Your task to perform on an android device: Search for the new nike shoes on Target Image 0: 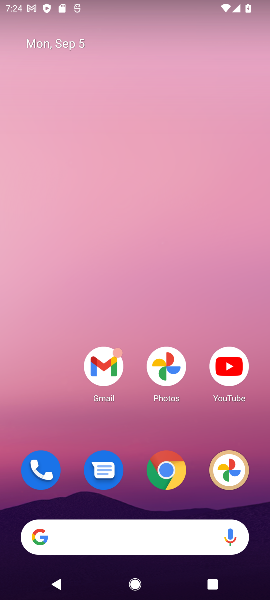
Step 0: click (64, 94)
Your task to perform on an android device: Search for the new nike shoes on Target Image 1: 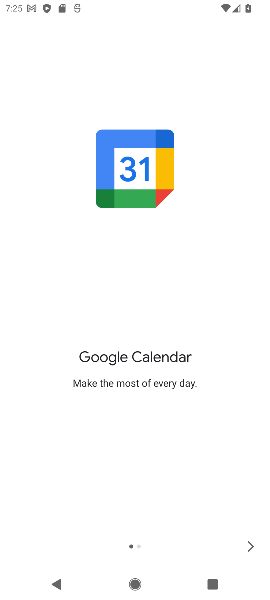
Step 1: click (259, 539)
Your task to perform on an android device: Search for the new nike shoes on Target Image 2: 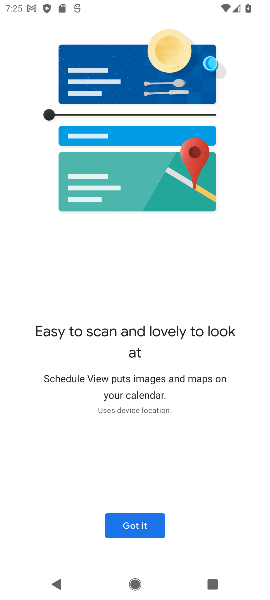
Step 2: press home button
Your task to perform on an android device: Search for the new nike shoes on Target Image 3: 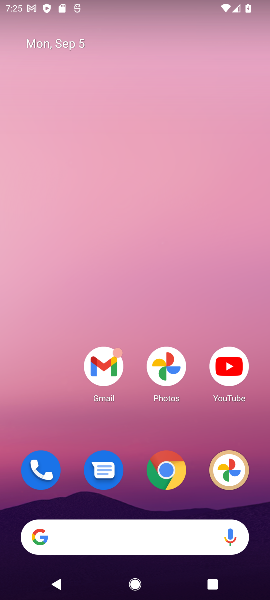
Step 3: click (131, 64)
Your task to perform on an android device: Search for the new nike shoes on Target Image 4: 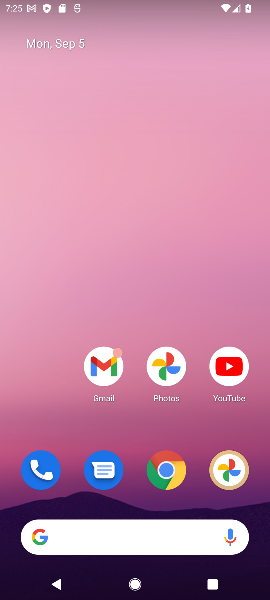
Step 4: drag from (152, 527) to (108, 93)
Your task to perform on an android device: Search for the new nike shoes on Target Image 5: 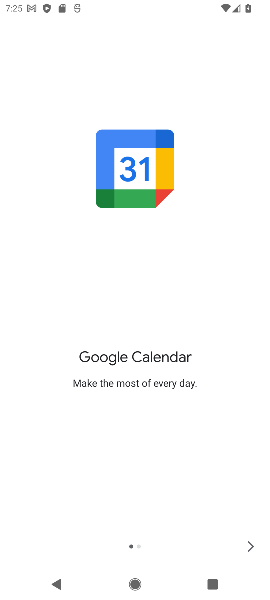
Step 5: press home button
Your task to perform on an android device: Search for the new nike shoes on Target Image 6: 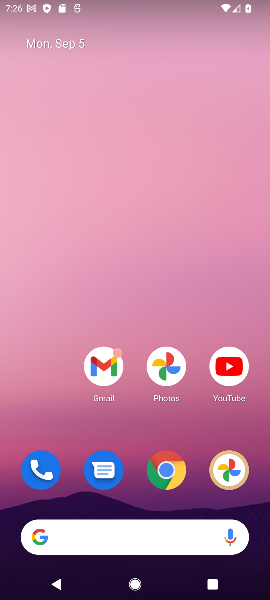
Step 6: drag from (185, 502) to (219, 35)
Your task to perform on an android device: Search for the new nike shoes on Target Image 7: 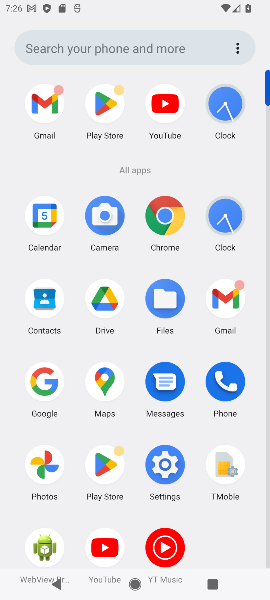
Step 7: click (157, 227)
Your task to perform on an android device: Search for the new nike shoes on Target Image 8: 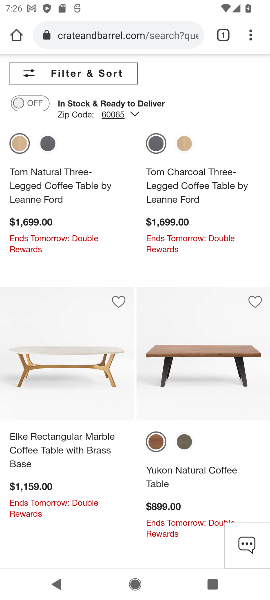
Step 8: click (77, 40)
Your task to perform on an android device: Search for the new nike shoes on Target Image 9: 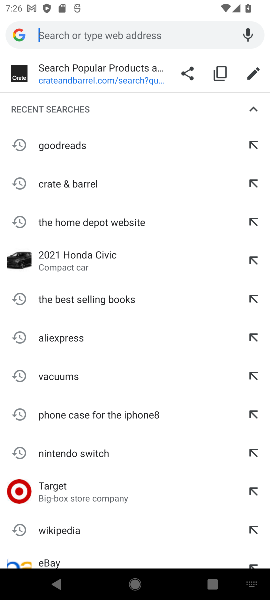
Step 9: type " Target"
Your task to perform on an android device: Search for the new nike shoes on Target Image 10: 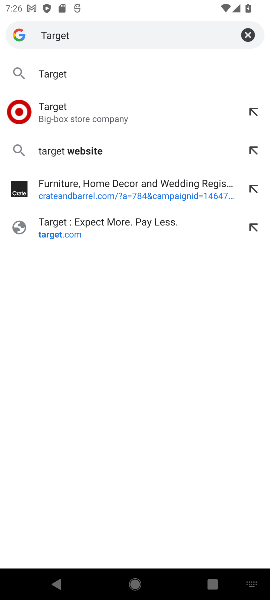
Step 10: click (17, 74)
Your task to perform on an android device: Search for the new nike shoes on Target Image 11: 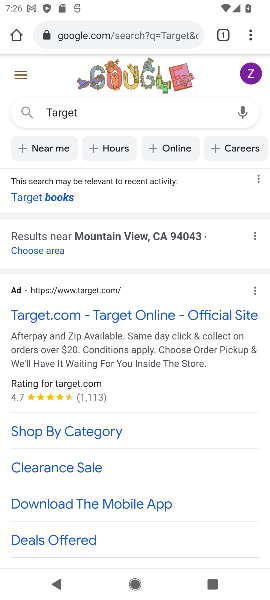
Step 11: click (85, 313)
Your task to perform on an android device: Search for the new nike shoes on Target Image 12: 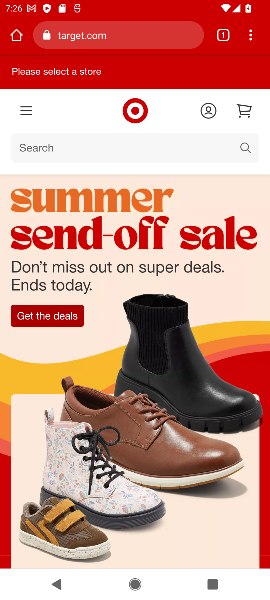
Step 12: click (57, 158)
Your task to perform on an android device: Search for the new nike shoes on Target Image 13: 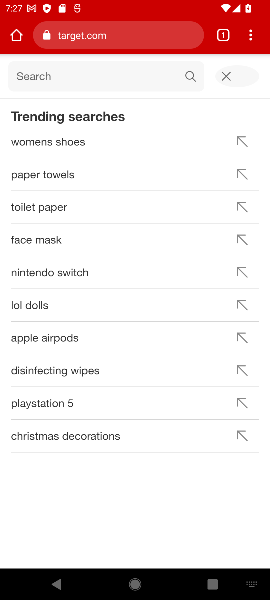
Step 13: type " the new nike shoes"
Your task to perform on an android device: Search for the new nike shoes on Target Image 14: 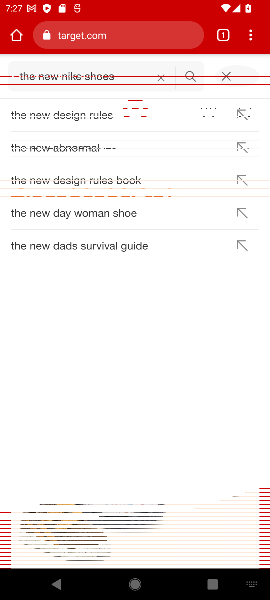
Step 14: click (197, 78)
Your task to perform on an android device: Search for the new nike shoes on Target Image 15: 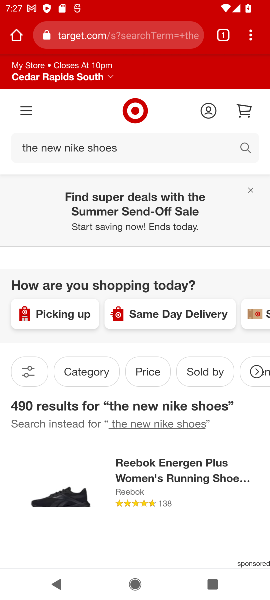
Step 15: task complete